Your task to perform on an android device: Go to privacy settings Image 0: 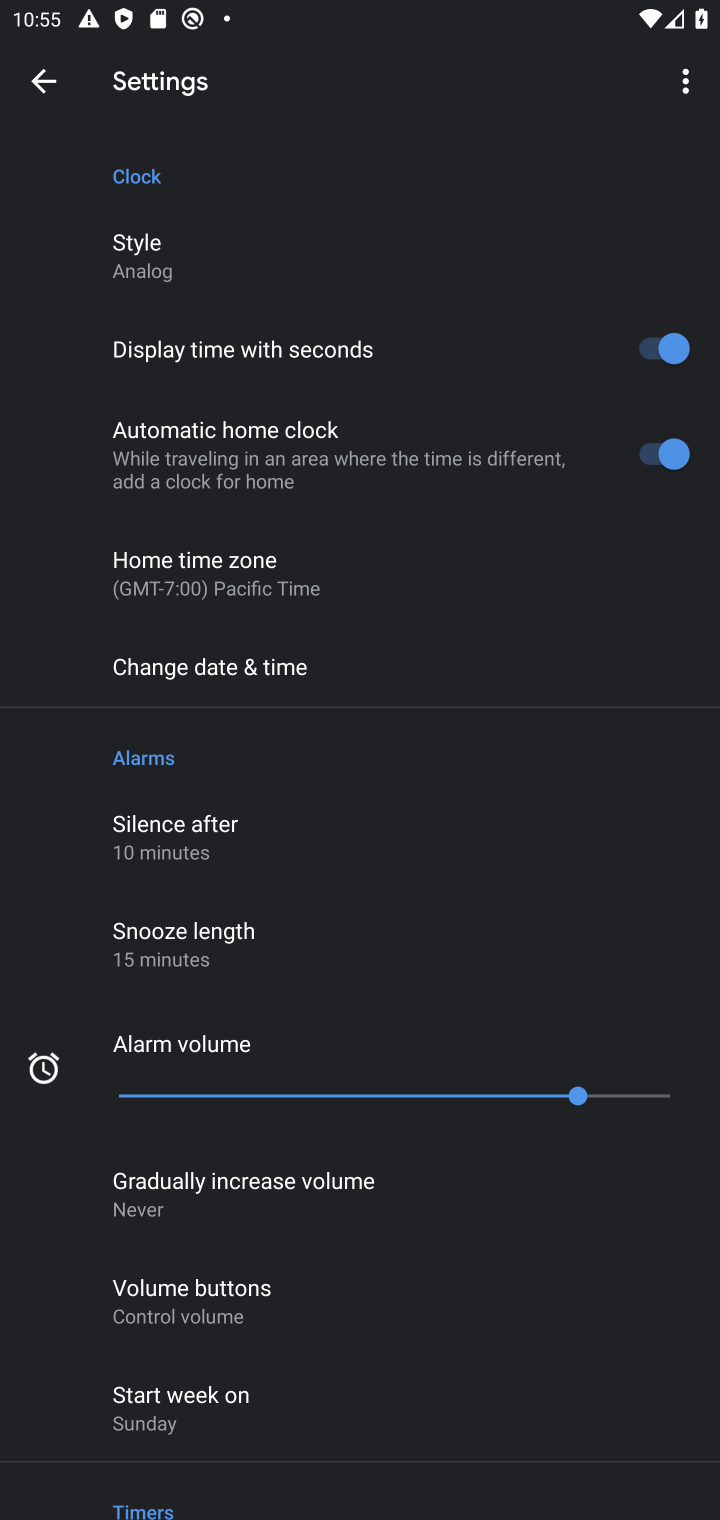
Step 0: press home button
Your task to perform on an android device: Go to privacy settings Image 1: 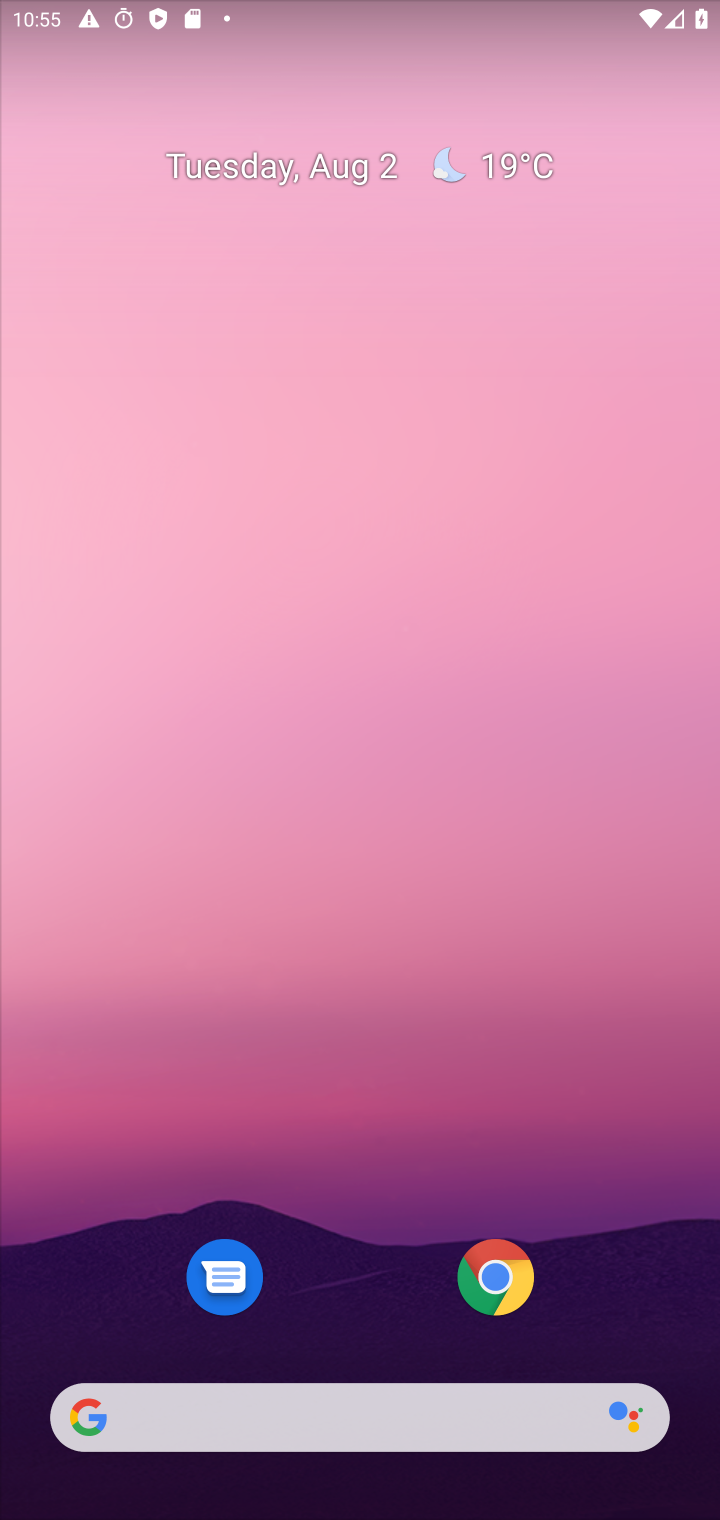
Step 1: press home button
Your task to perform on an android device: Go to privacy settings Image 2: 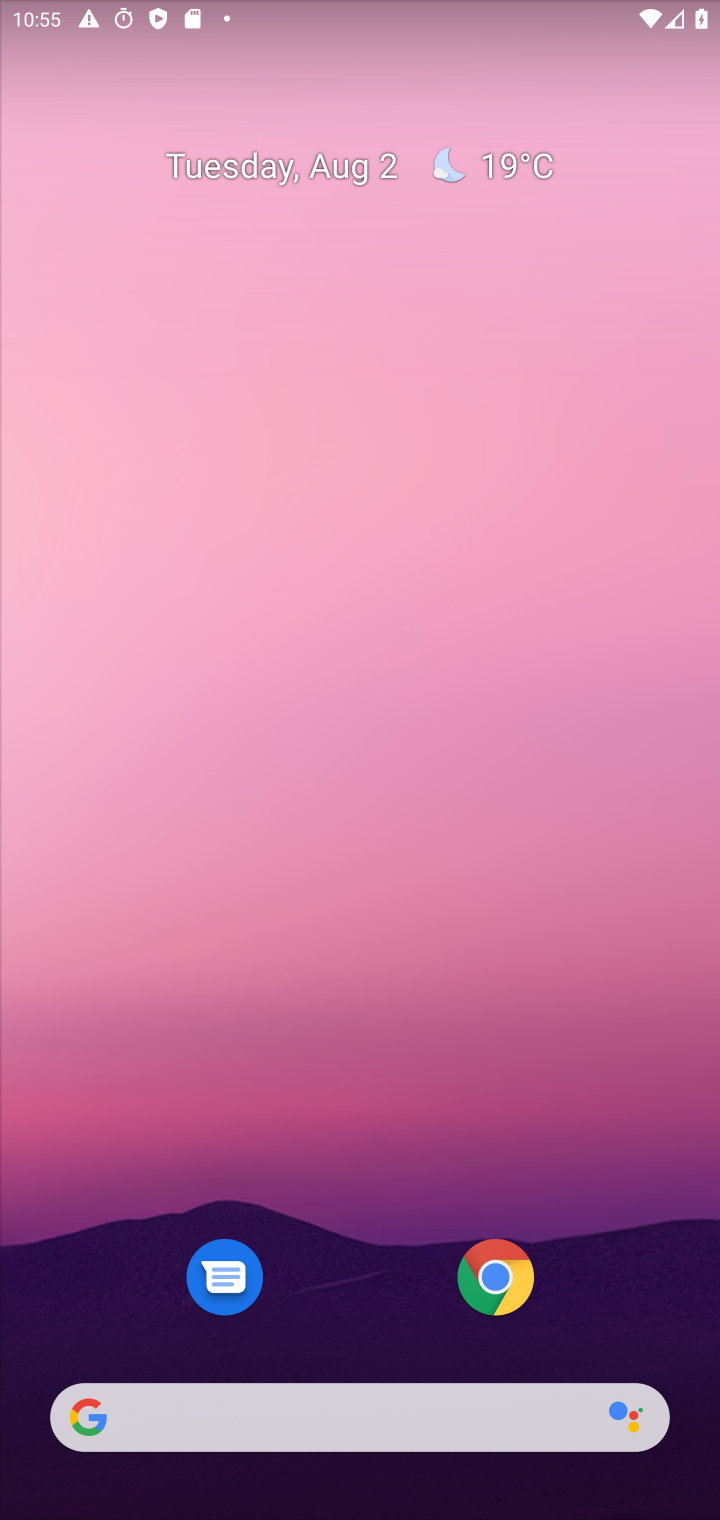
Step 2: drag from (377, 1312) to (385, 55)
Your task to perform on an android device: Go to privacy settings Image 3: 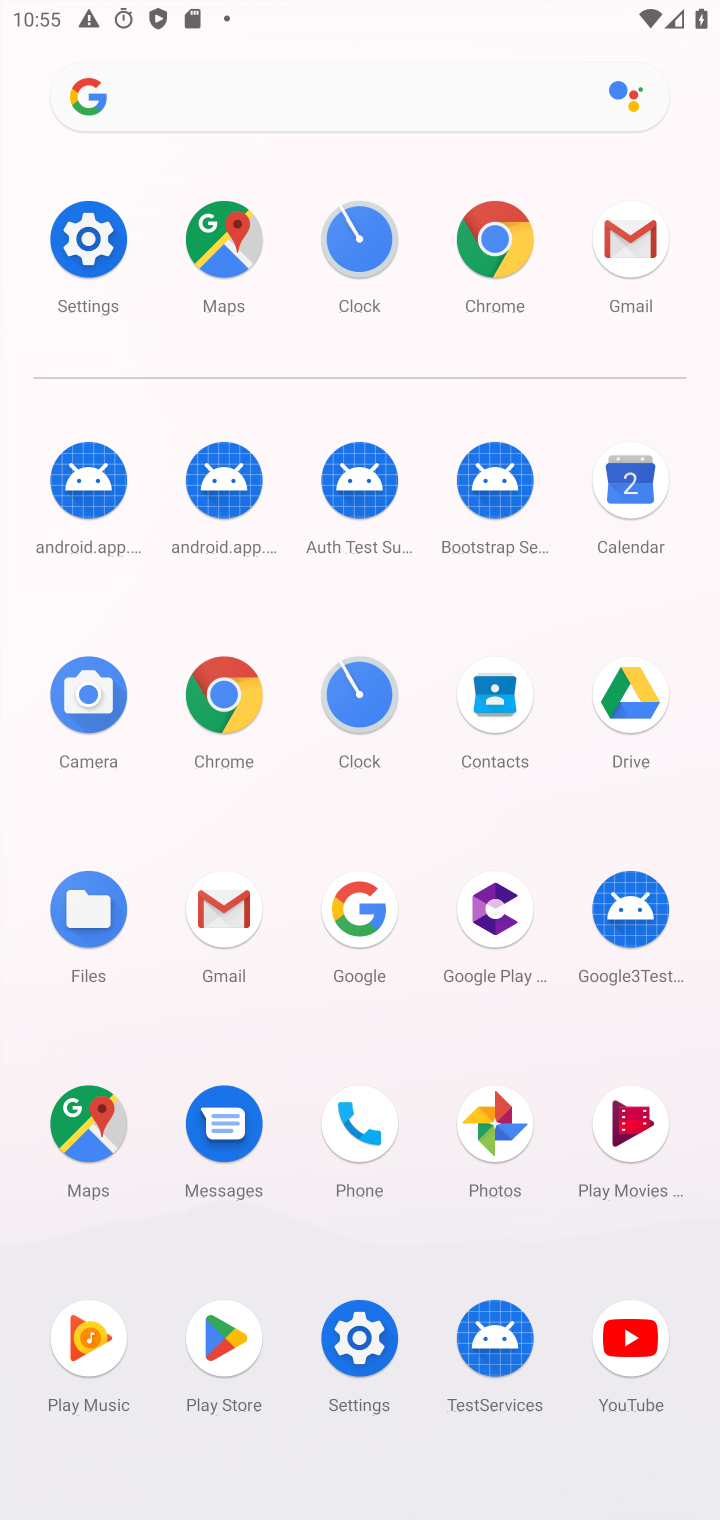
Step 3: click (79, 254)
Your task to perform on an android device: Go to privacy settings Image 4: 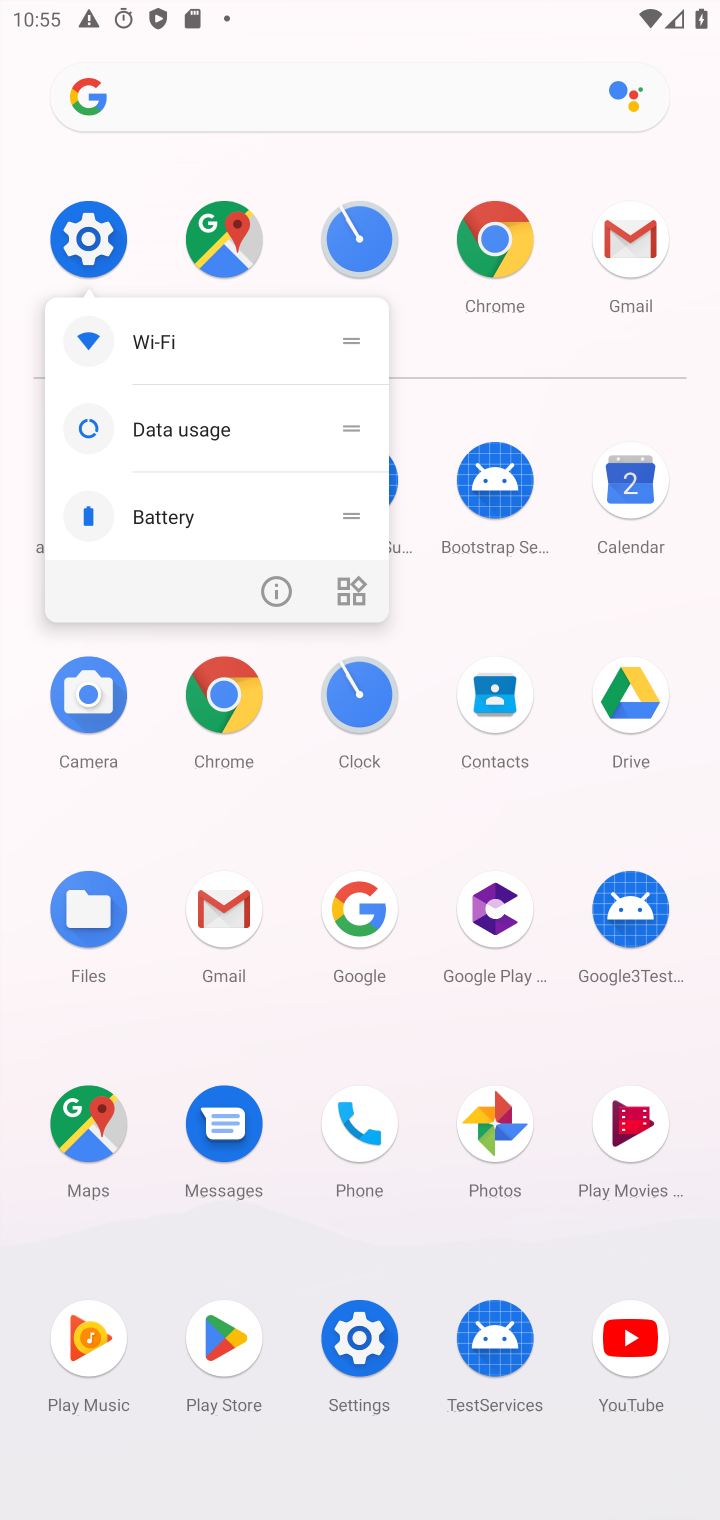
Step 4: click (68, 240)
Your task to perform on an android device: Go to privacy settings Image 5: 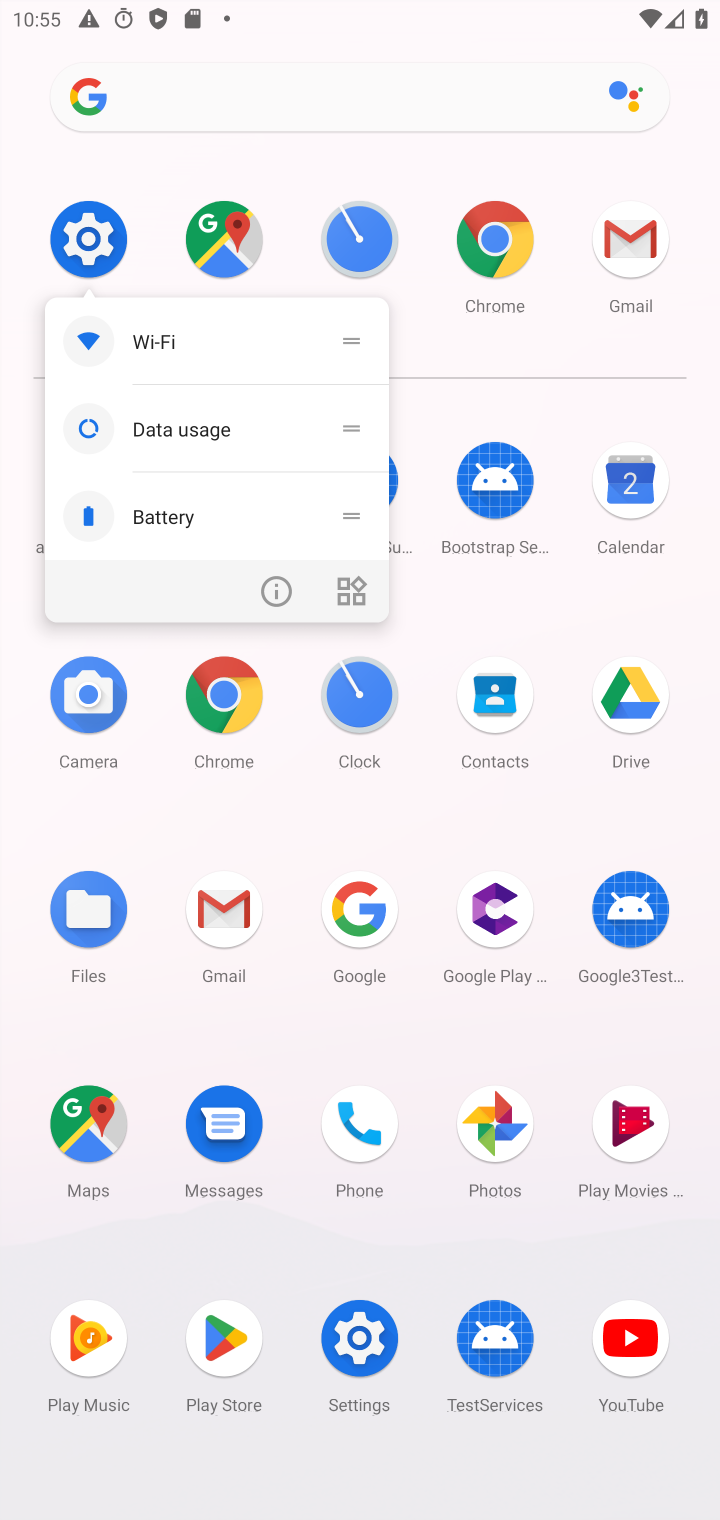
Step 5: click (68, 240)
Your task to perform on an android device: Go to privacy settings Image 6: 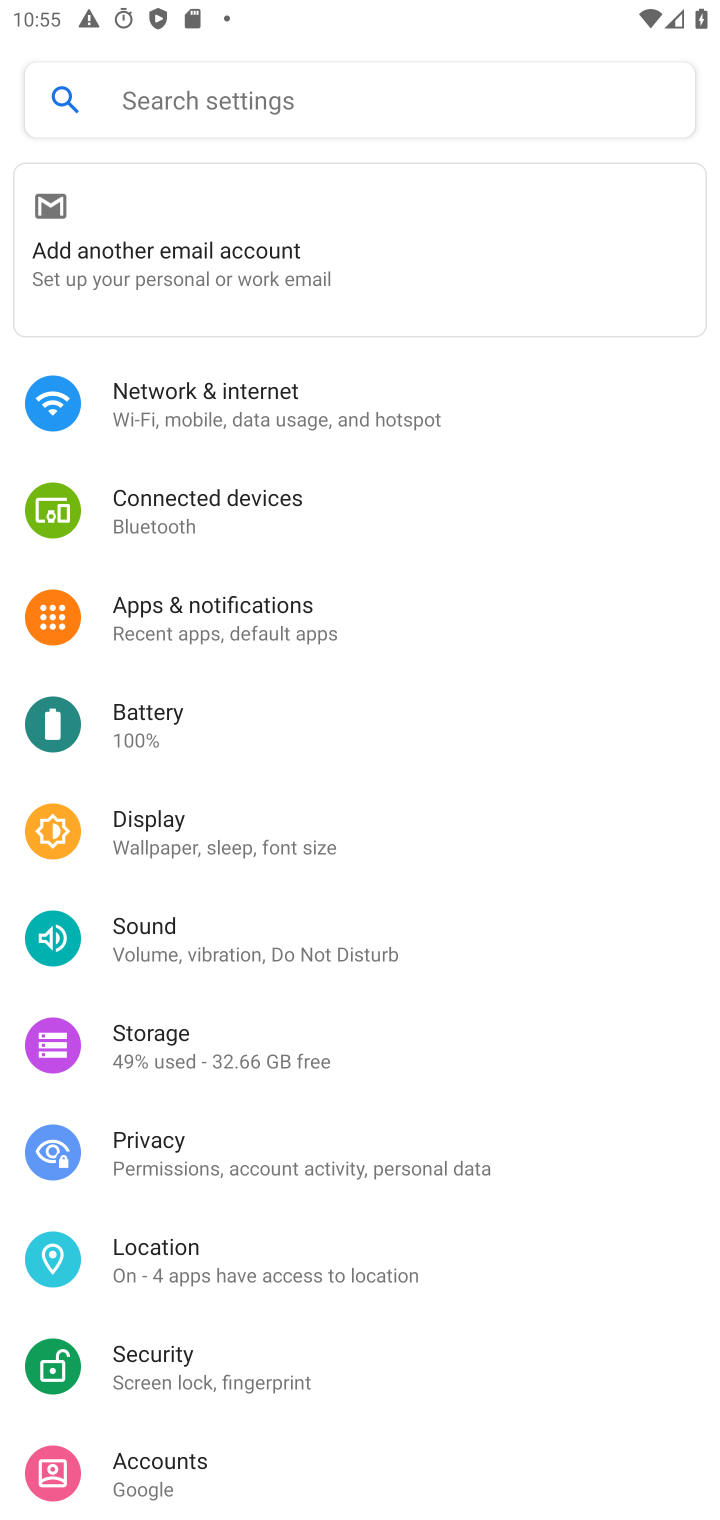
Step 6: click (421, 1150)
Your task to perform on an android device: Go to privacy settings Image 7: 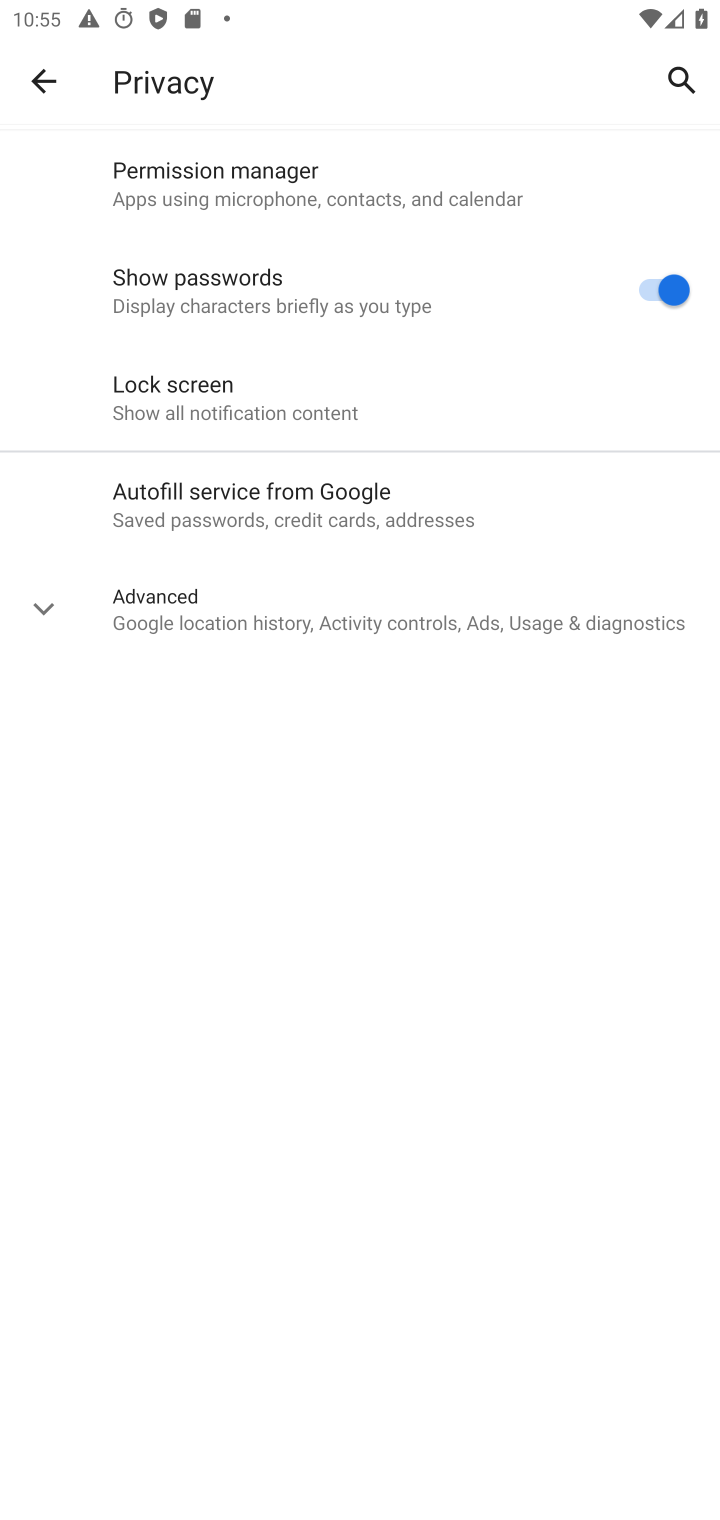
Step 7: task complete